Your task to perform on an android device: Search for seafood restaurants on Google Maps Image 0: 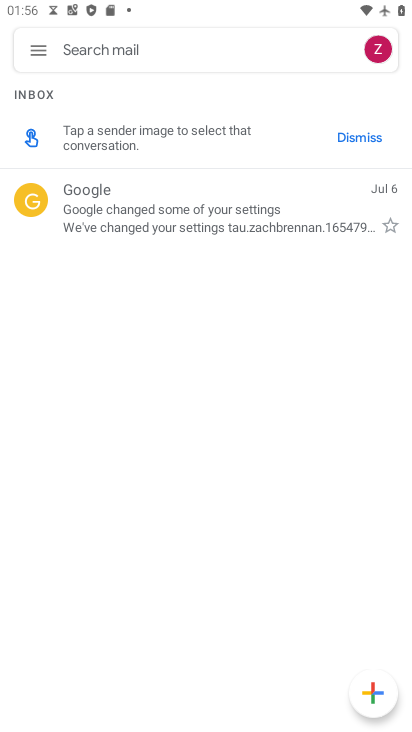
Step 0: press home button
Your task to perform on an android device: Search for seafood restaurants on Google Maps Image 1: 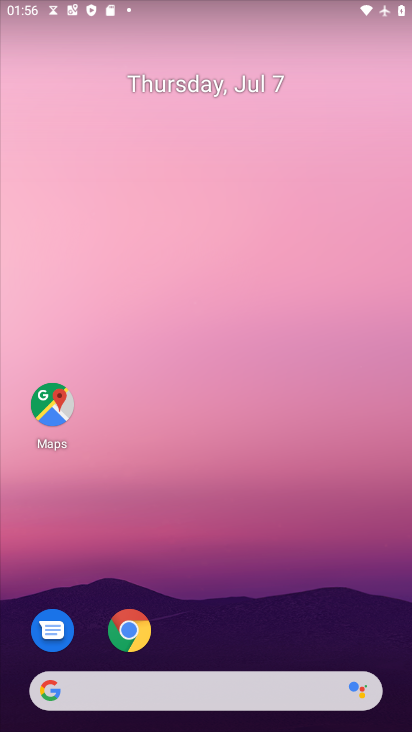
Step 1: drag from (241, 620) to (131, 118)
Your task to perform on an android device: Search for seafood restaurants on Google Maps Image 2: 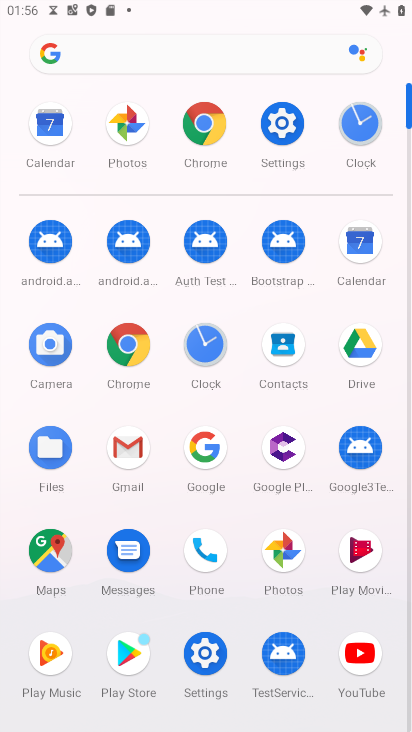
Step 2: click (49, 551)
Your task to perform on an android device: Search for seafood restaurants on Google Maps Image 3: 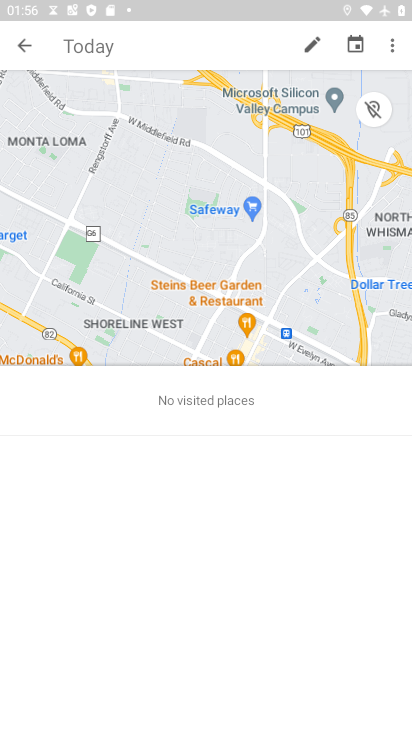
Step 3: click (24, 45)
Your task to perform on an android device: Search for seafood restaurants on Google Maps Image 4: 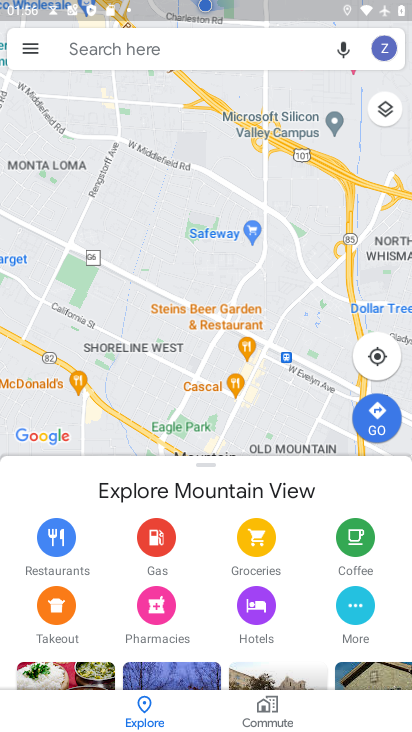
Step 4: click (166, 49)
Your task to perform on an android device: Search for seafood restaurants on Google Maps Image 5: 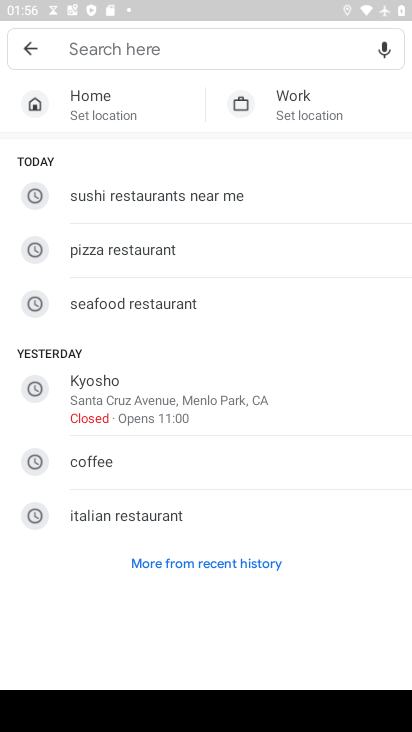
Step 5: type "seafood restaurants"
Your task to perform on an android device: Search for seafood restaurants on Google Maps Image 6: 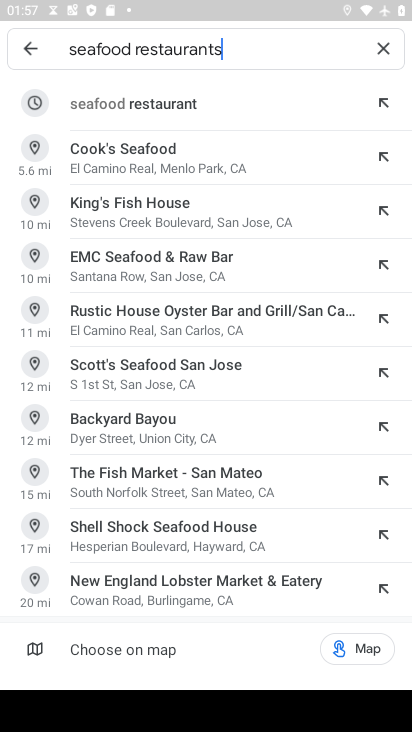
Step 6: click (251, 97)
Your task to perform on an android device: Search for seafood restaurants on Google Maps Image 7: 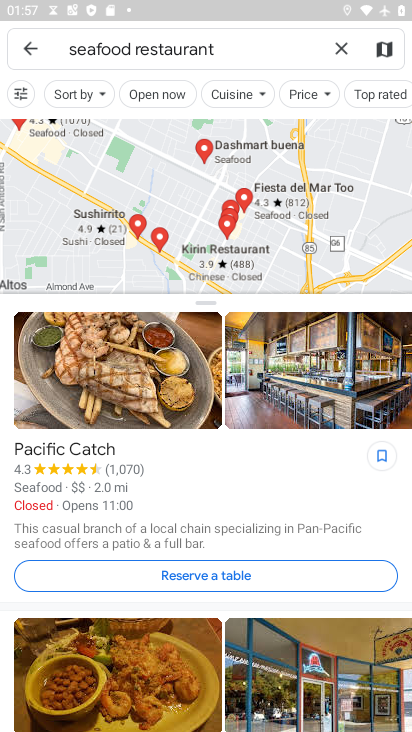
Step 7: task complete